Your task to perform on an android device: Search for a 1/4" hex shank drill bit on Lowe's. Image 0: 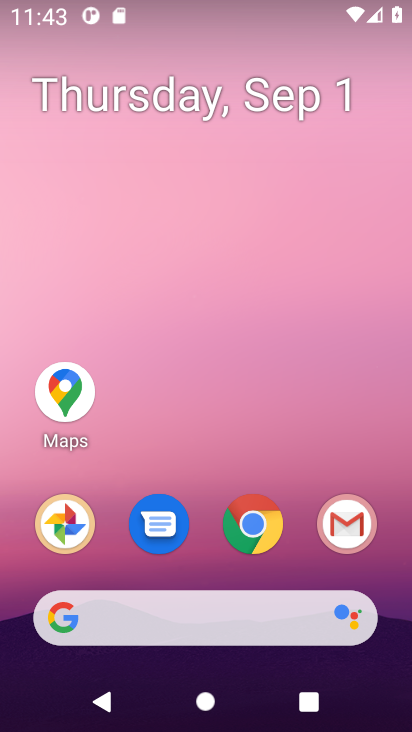
Step 0: click (232, 611)
Your task to perform on an android device: Search for a 1/4" hex shank drill bit on Lowe's. Image 1: 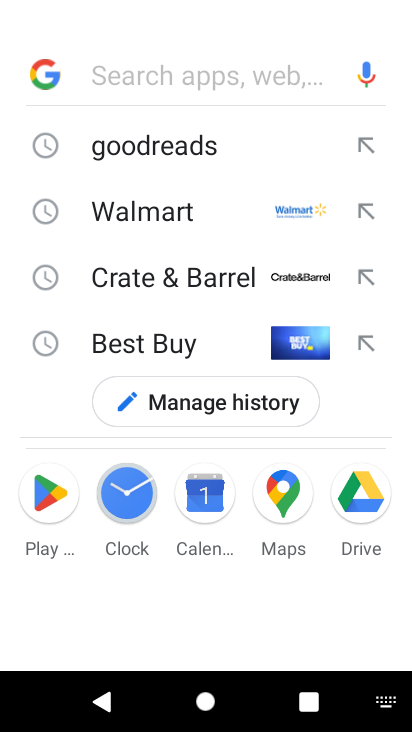
Step 1: press enter
Your task to perform on an android device: Search for a 1/4" hex shank drill bit on Lowe's. Image 2: 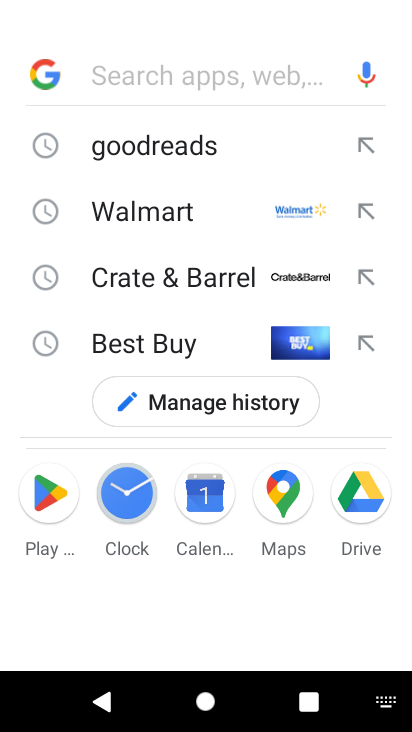
Step 2: type "lowes"
Your task to perform on an android device: Search for a 1/4" hex shank drill bit on Lowe's. Image 3: 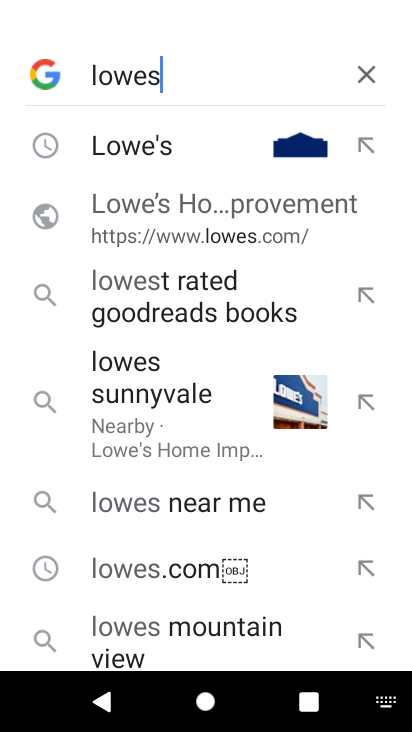
Step 3: click (157, 149)
Your task to perform on an android device: Search for a 1/4" hex shank drill bit on Lowe's. Image 4: 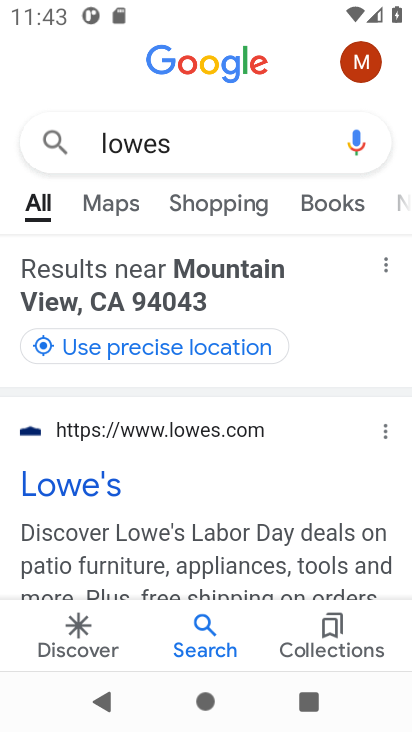
Step 4: click (97, 485)
Your task to perform on an android device: Search for a 1/4" hex shank drill bit on Lowe's. Image 5: 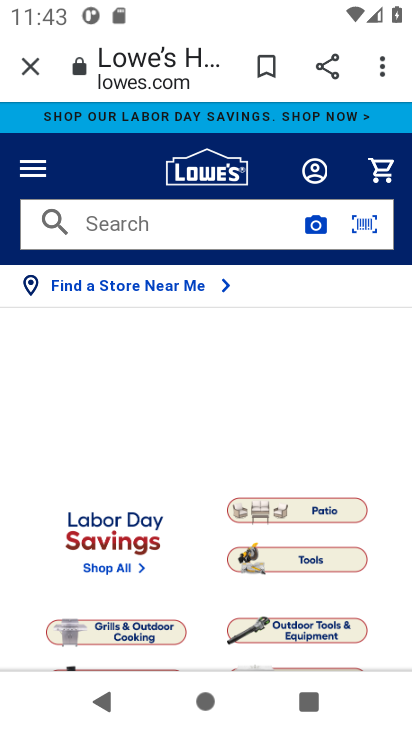
Step 5: click (171, 223)
Your task to perform on an android device: Search for a 1/4" hex shank drill bit on Lowe's. Image 6: 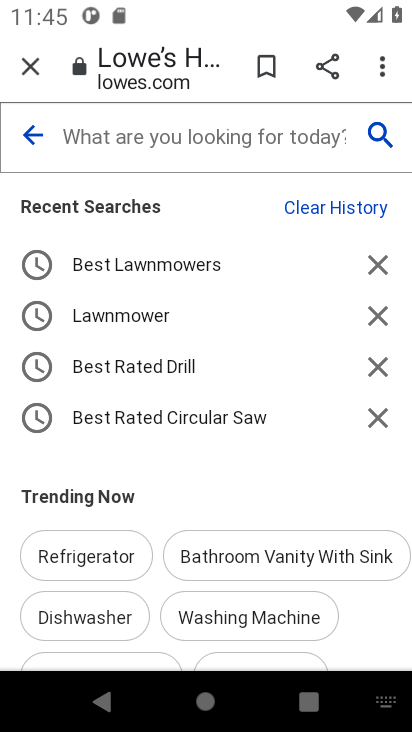
Step 6: type "1/4" hex shank drill bit"
Your task to perform on an android device: Search for a 1/4" hex shank drill bit on Lowe's. Image 7: 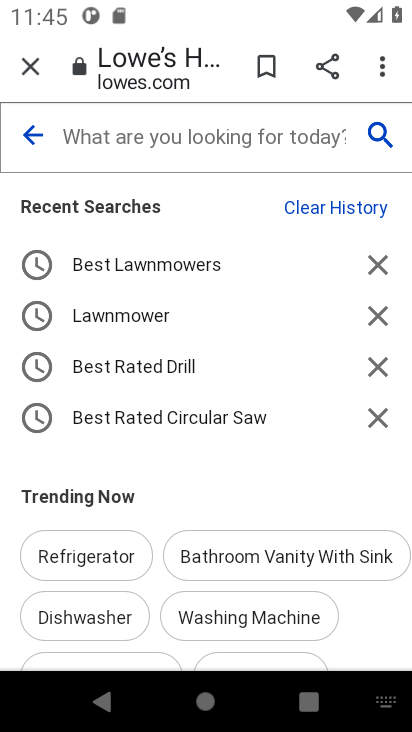
Step 7: click (222, 132)
Your task to perform on an android device: Search for a 1/4" hex shank drill bit on Lowe's. Image 8: 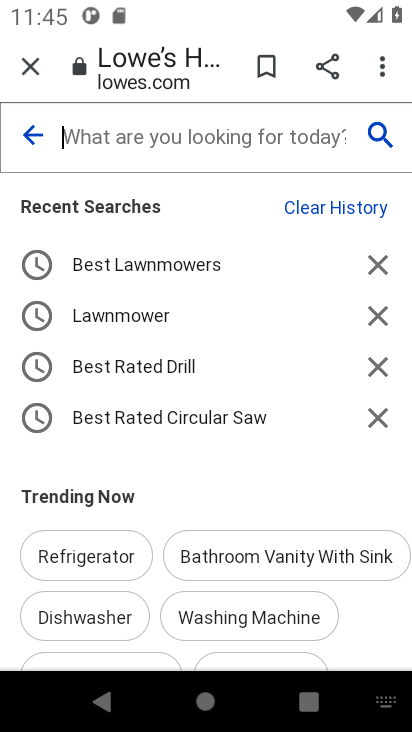
Step 8: task complete